Your task to perform on an android device: snooze an email in the gmail app Image 0: 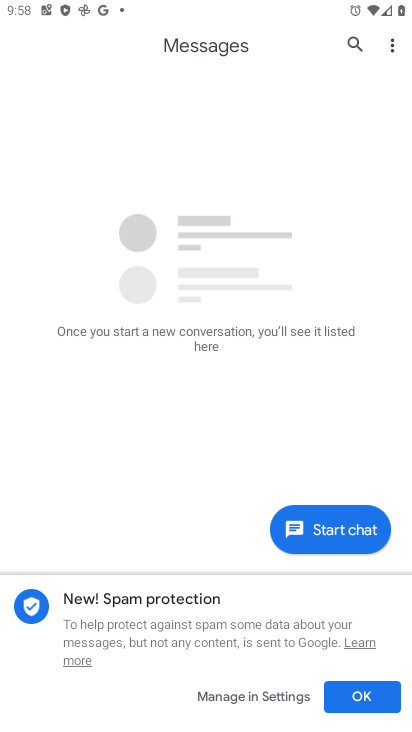
Step 0: click (123, 633)
Your task to perform on an android device: snooze an email in the gmail app Image 1: 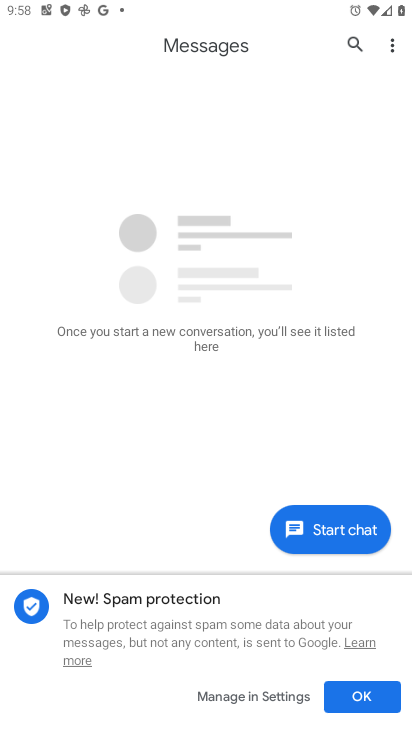
Step 1: press home button
Your task to perform on an android device: snooze an email in the gmail app Image 2: 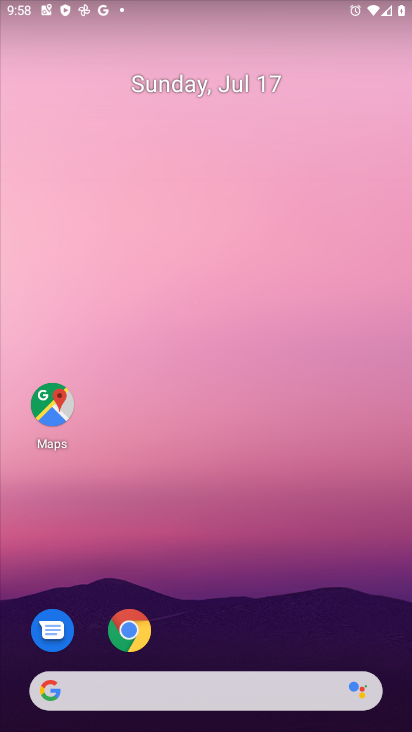
Step 2: click (117, 631)
Your task to perform on an android device: snooze an email in the gmail app Image 3: 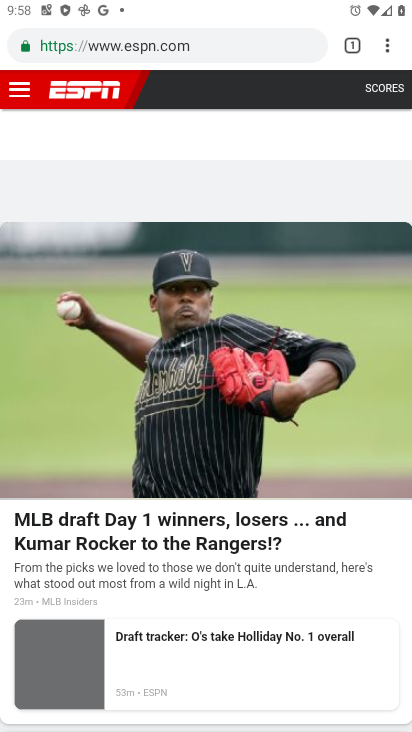
Step 3: press home button
Your task to perform on an android device: snooze an email in the gmail app Image 4: 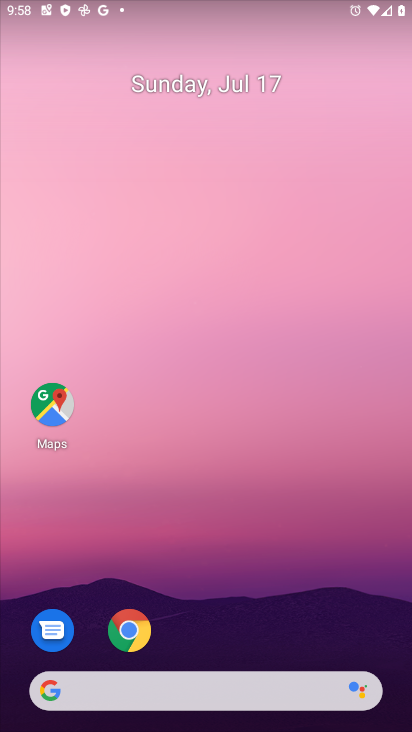
Step 4: drag from (185, 596) to (276, 55)
Your task to perform on an android device: snooze an email in the gmail app Image 5: 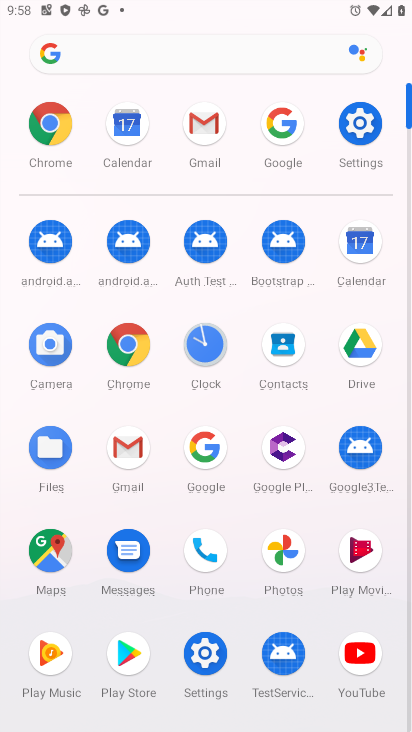
Step 5: click (205, 119)
Your task to perform on an android device: snooze an email in the gmail app Image 6: 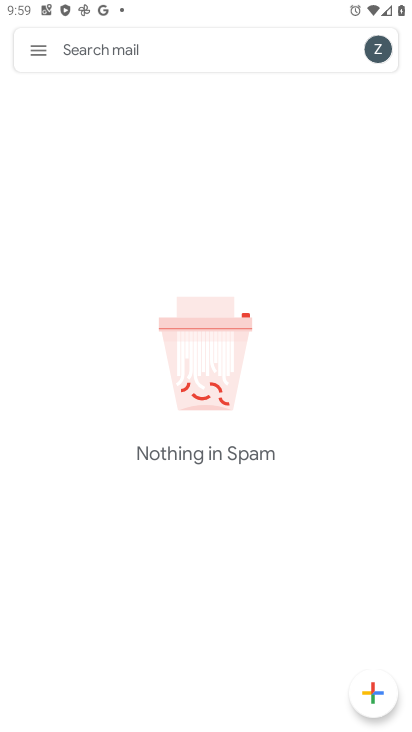
Step 6: click (29, 51)
Your task to perform on an android device: snooze an email in the gmail app Image 7: 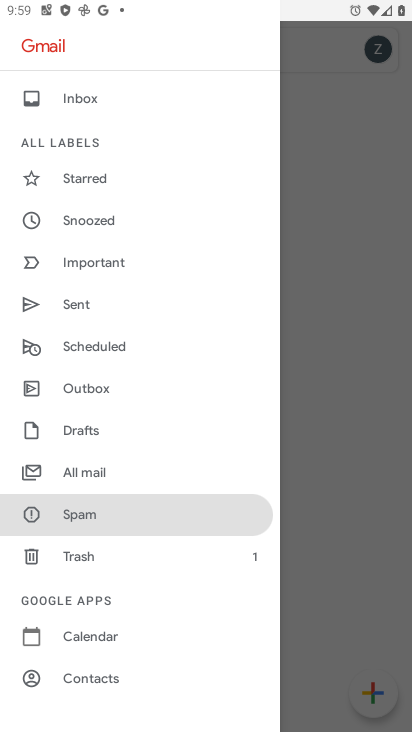
Step 7: click (62, 466)
Your task to perform on an android device: snooze an email in the gmail app Image 8: 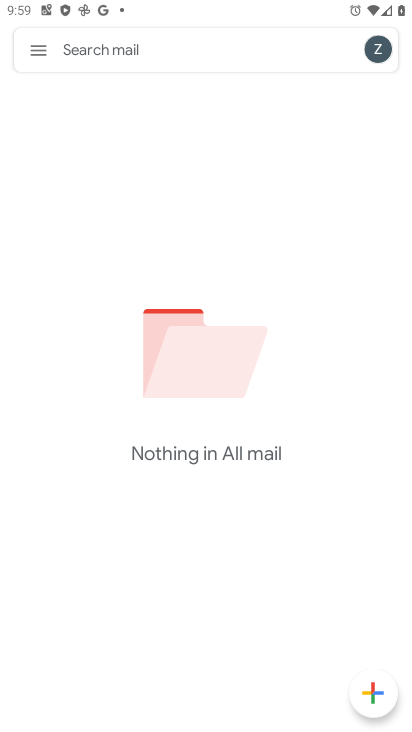
Step 8: task complete